Your task to perform on an android device: Do I have any events today? Image 0: 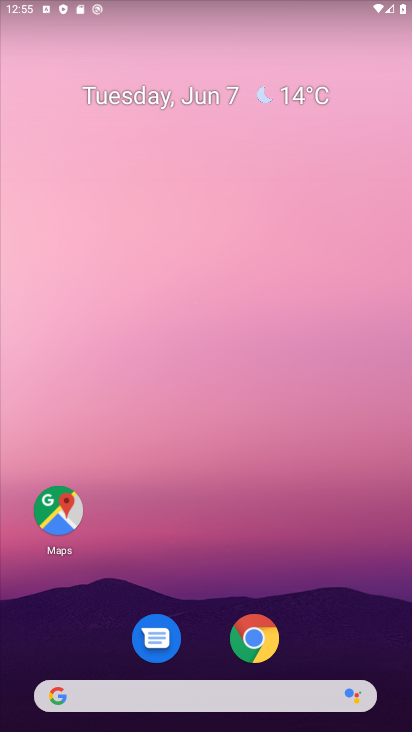
Step 0: drag from (201, 667) to (72, 4)
Your task to perform on an android device: Do I have any events today? Image 1: 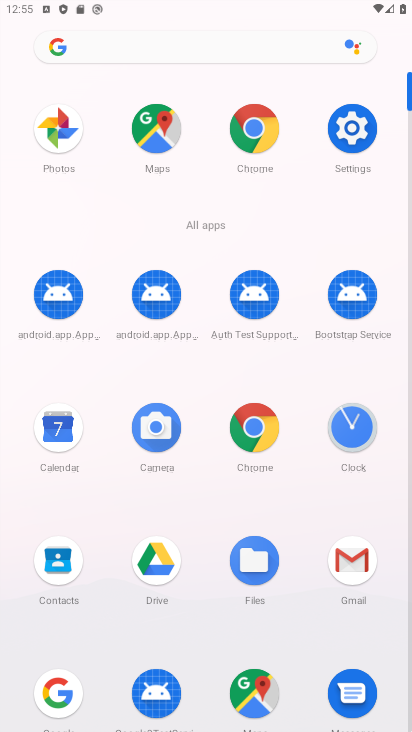
Step 1: click (45, 419)
Your task to perform on an android device: Do I have any events today? Image 2: 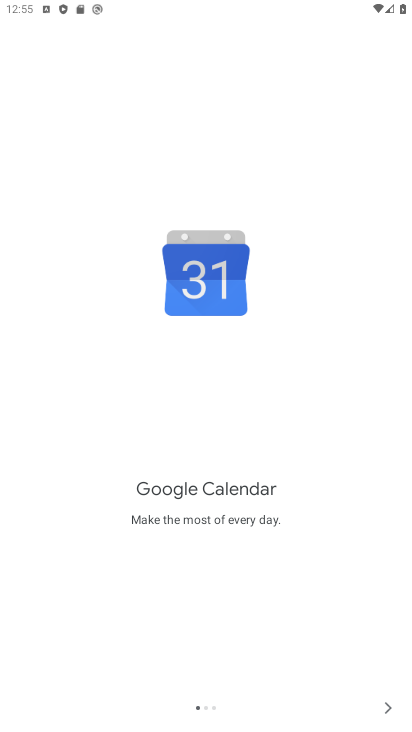
Step 2: click (388, 699)
Your task to perform on an android device: Do I have any events today? Image 3: 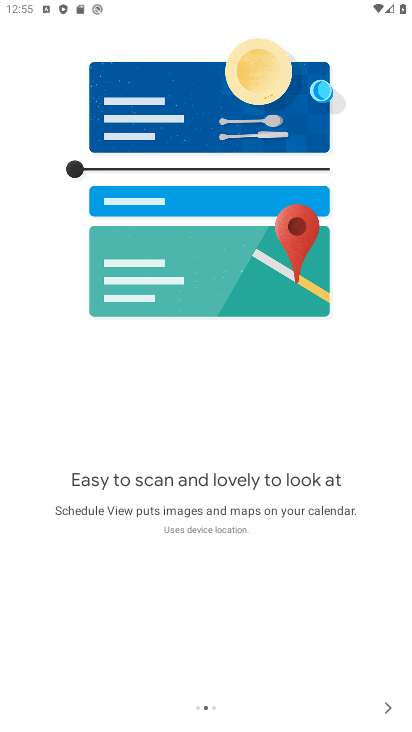
Step 3: click (383, 706)
Your task to perform on an android device: Do I have any events today? Image 4: 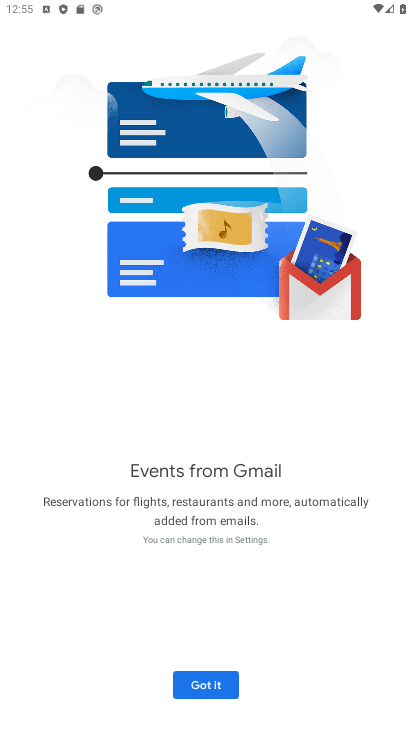
Step 4: click (191, 687)
Your task to perform on an android device: Do I have any events today? Image 5: 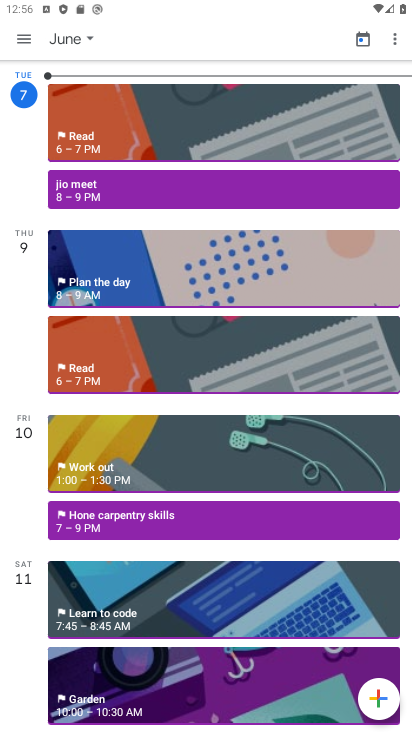
Step 5: click (92, 47)
Your task to perform on an android device: Do I have any events today? Image 6: 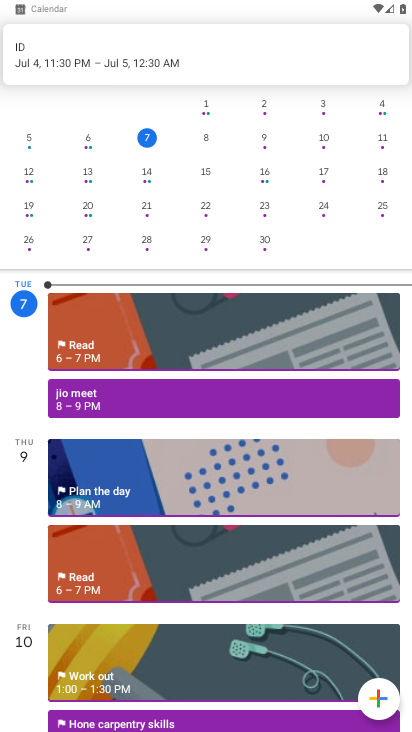
Step 6: task complete